Your task to perform on an android device: turn smart compose on in the gmail app Image 0: 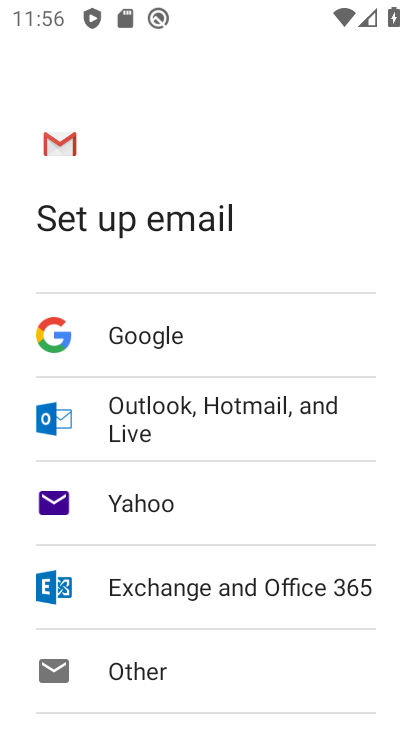
Step 0: press home button
Your task to perform on an android device: turn smart compose on in the gmail app Image 1: 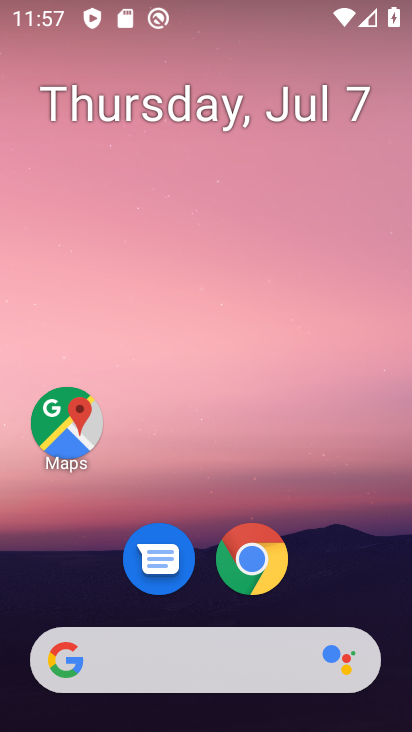
Step 1: drag from (216, 626) to (188, 112)
Your task to perform on an android device: turn smart compose on in the gmail app Image 2: 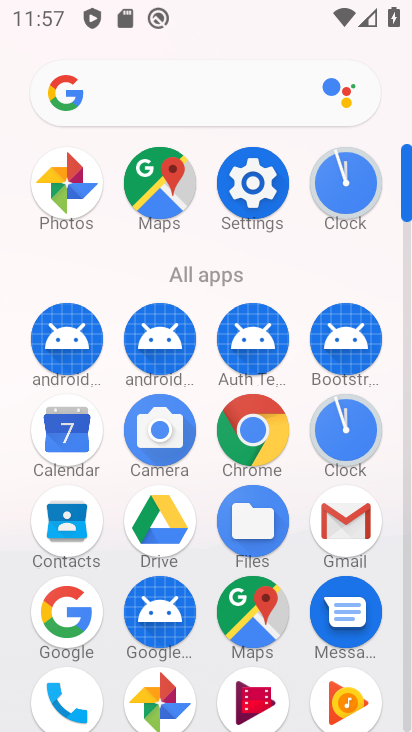
Step 2: click (365, 524)
Your task to perform on an android device: turn smart compose on in the gmail app Image 3: 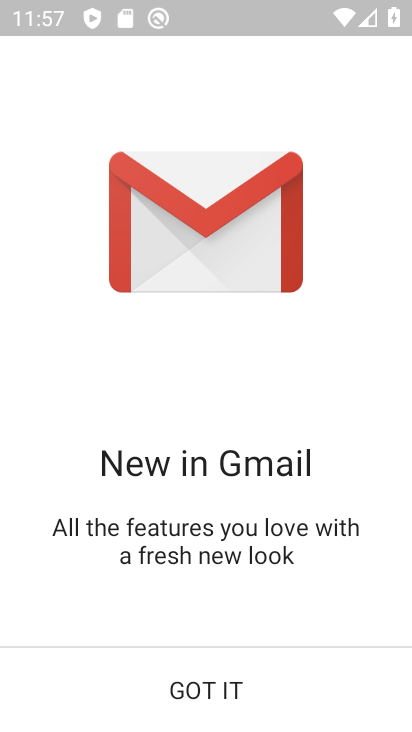
Step 3: click (213, 694)
Your task to perform on an android device: turn smart compose on in the gmail app Image 4: 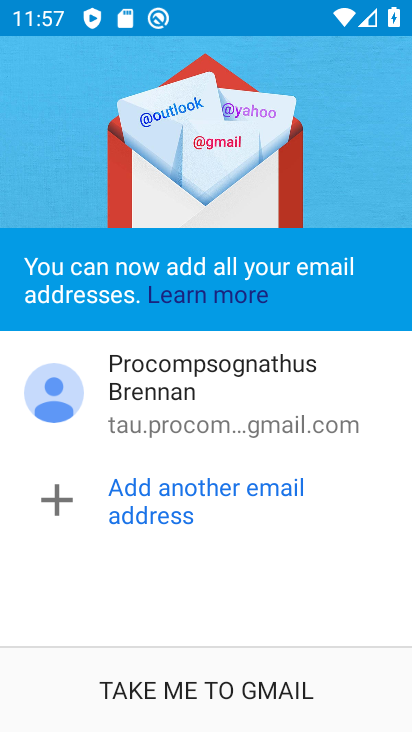
Step 4: click (208, 683)
Your task to perform on an android device: turn smart compose on in the gmail app Image 5: 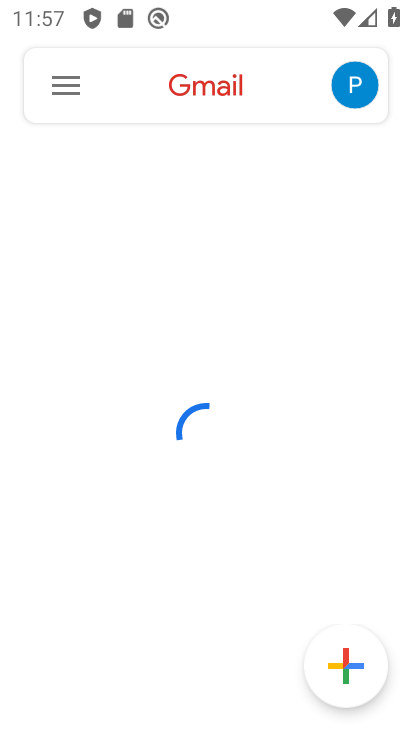
Step 5: click (70, 77)
Your task to perform on an android device: turn smart compose on in the gmail app Image 6: 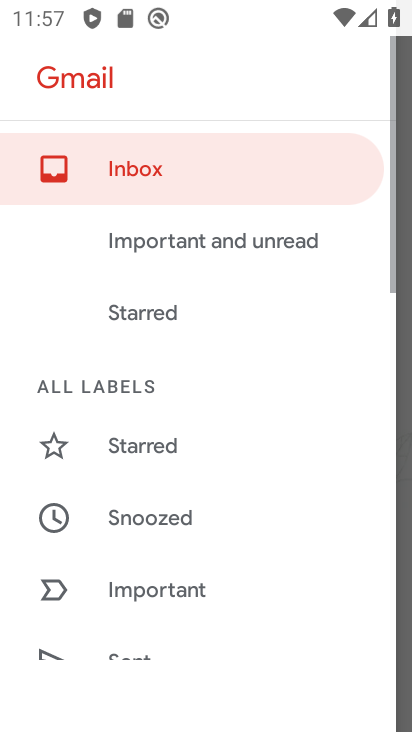
Step 6: drag from (152, 456) to (127, 150)
Your task to perform on an android device: turn smart compose on in the gmail app Image 7: 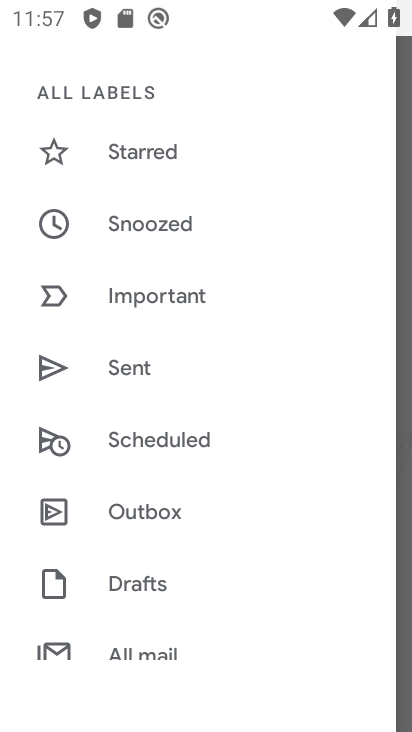
Step 7: drag from (227, 509) to (229, 215)
Your task to perform on an android device: turn smart compose on in the gmail app Image 8: 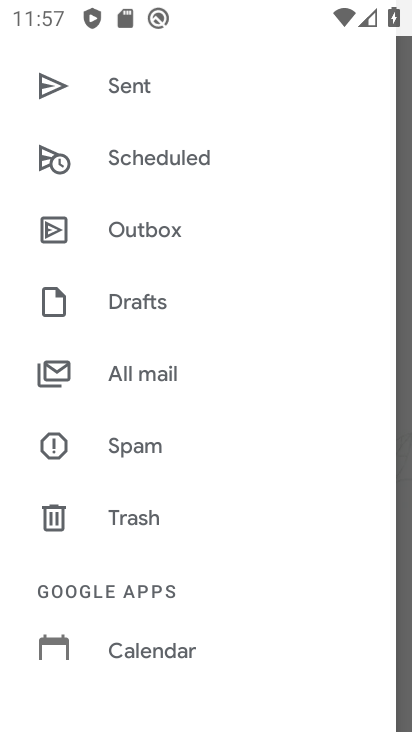
Step 8: drag from (159, 590) to (118, 262)
Your task to perform on an android device: turn smart compose on in the gmail app Image 9: 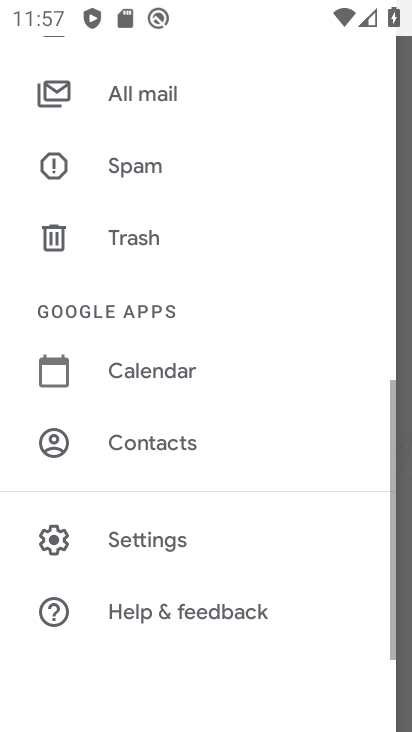
Step 9: click (139, 554)
Your task to perform on an android device: turn smart compose on in the gmail app Image 10: 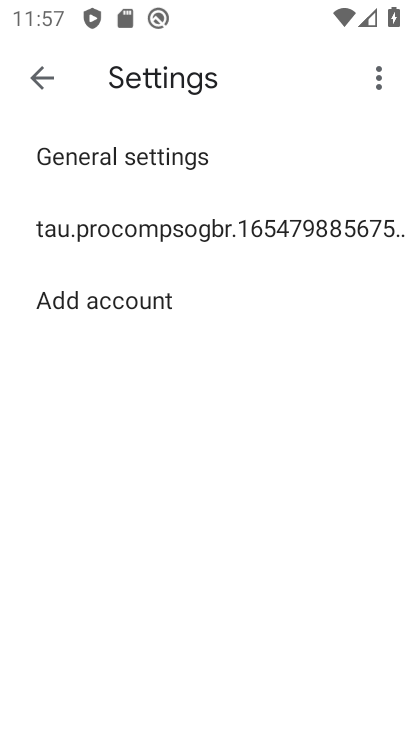
Step 10: click (95, 238)
Your task to perform on an android device: turn smart compose on in the gmail app Image 11: 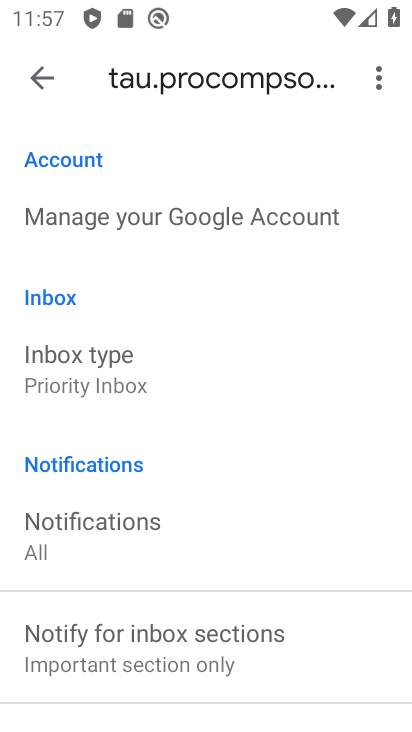
Step 11: task complete